Your task to perform on an android device: move an email to a new category in the gmail app Image 0: 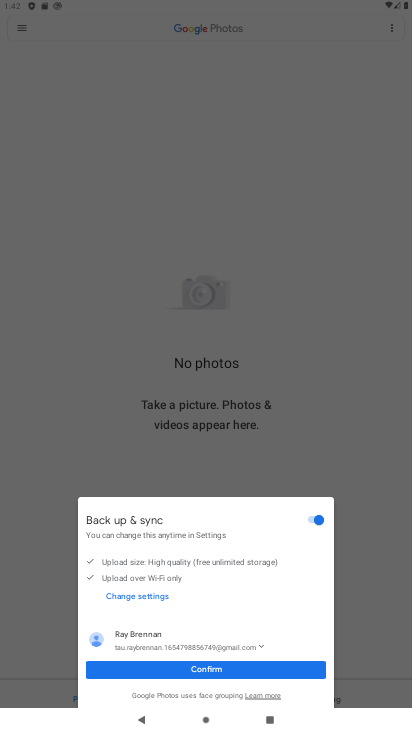
Step 0: press home button
Your task to perform on an android device: move an email to a new category in the gmail app Image 1: 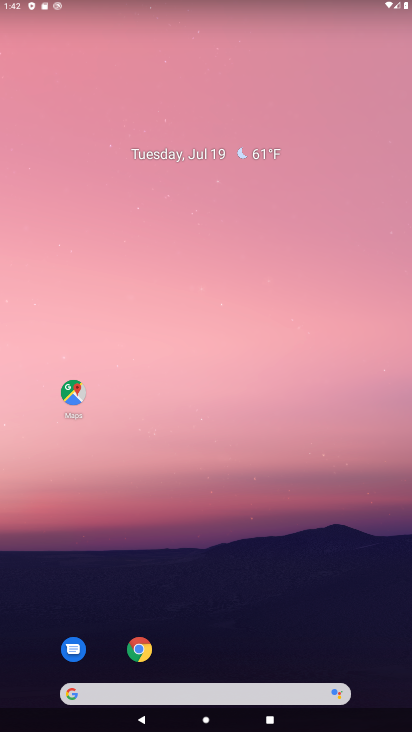
Step 1: drag from (324, 587) to (317, 98)
Your task to perform on an android device: move an email to a new category in the gmail app Image 2: 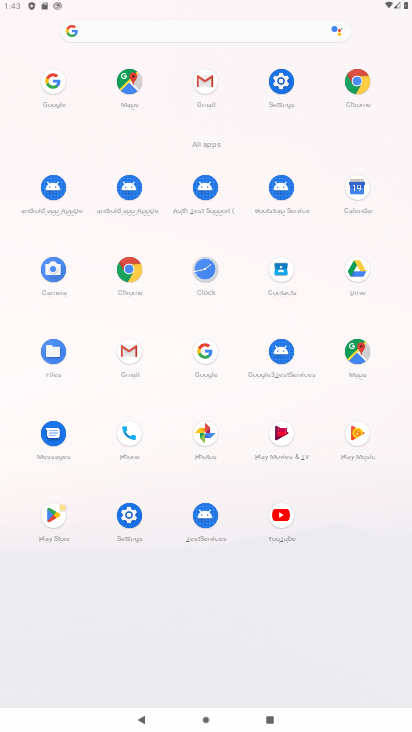
Step 2: click (212, 84)
Your task to perform on an android device: move an email to a new category in the gmail app Image 3: 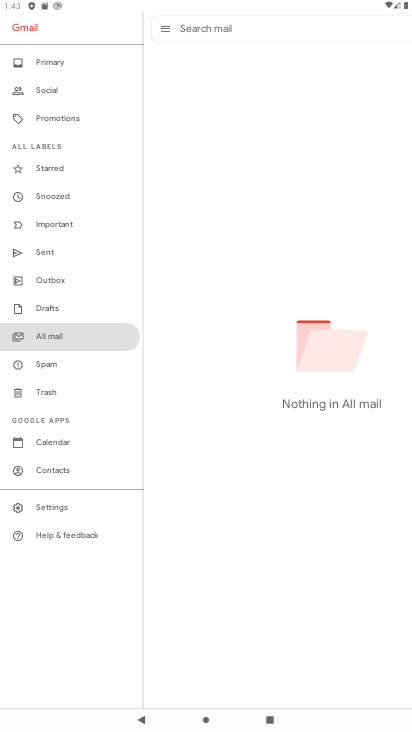
Step 3: task complete